Your task to perform on an android device: see creations saved in the google photos Image 0: 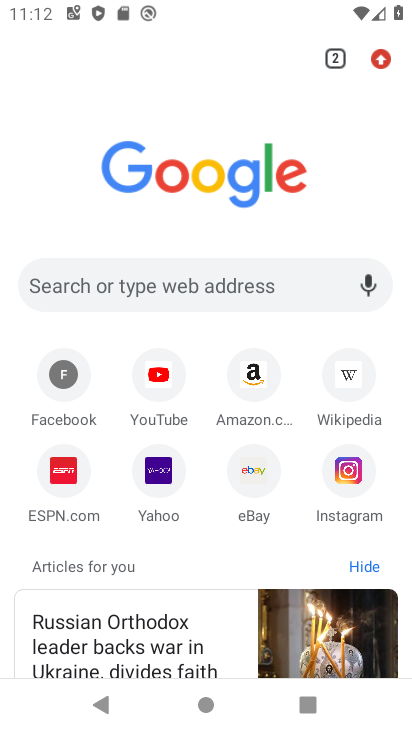
Step 0: press home button
Your task to perform on an android device: see creations saved in the google photos Image 1: 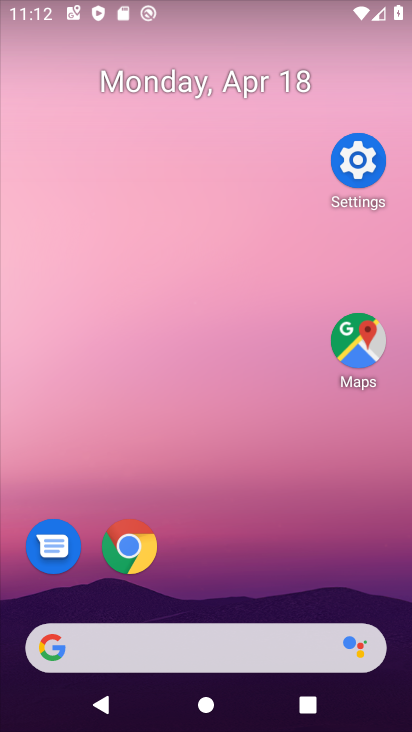
Step 1: drag from (262, 713) to (131, 136)
Your task to perform on an android device: see creations saved in the google photos Image 2: 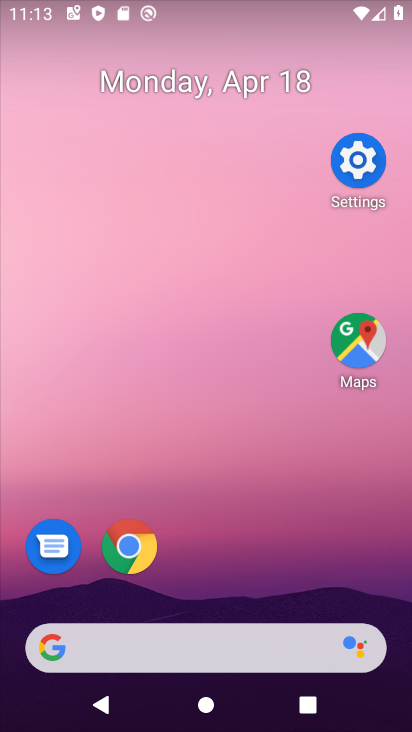
Step 2: drag from (300, 692) to (155, 75)
Your task to perform on an android device: see creations saved in the google photos Image 3: 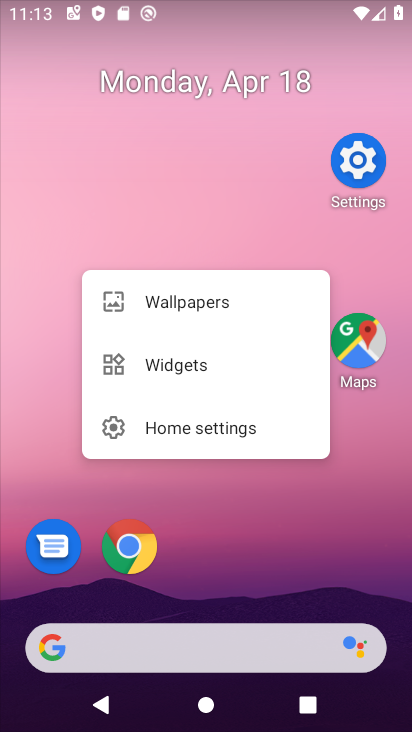
Step 3: click (141, 160)
Your task to perform on an android device: see creations saved in the google photos Image 4: 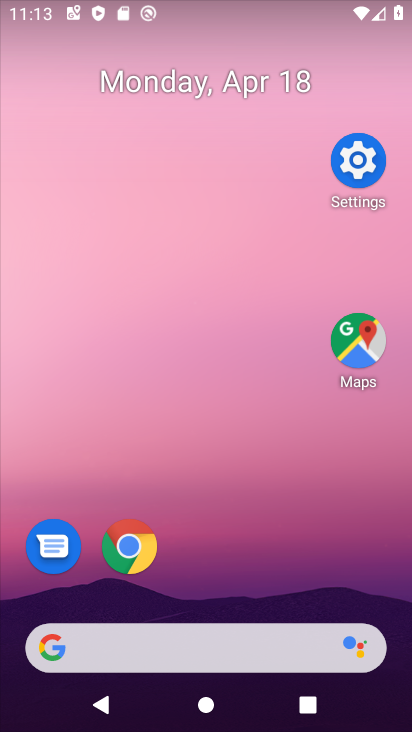
Step 4: drag from (226, 607) to (75, 62)
Your task to perform on an android device: see creations saved in the google photos Image 5: 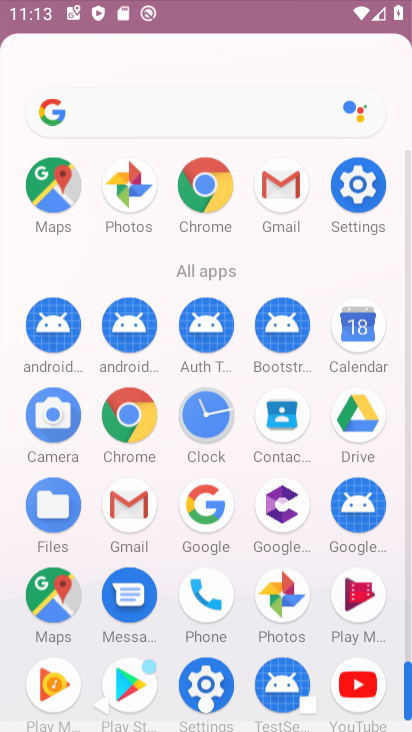
Step 5: drag from (279, 525) to (99, 104)
Your task to perform on an android device: see creations saved in the google photos Image 6: 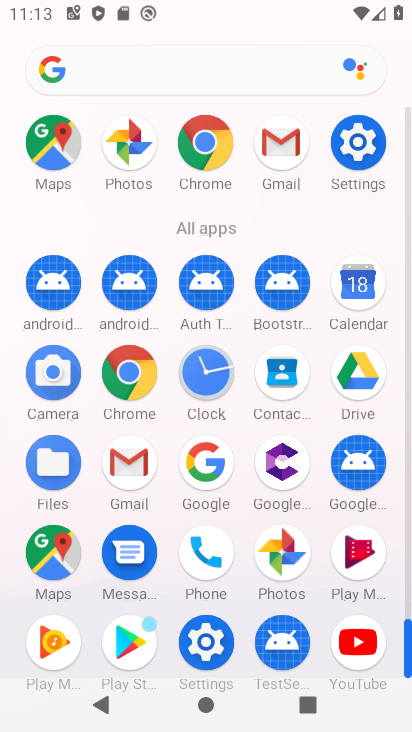
Step 6: drag from (254, 454) to (163, 159)
Your task to perform on an android device: see creations saved in the google photos Image 7: 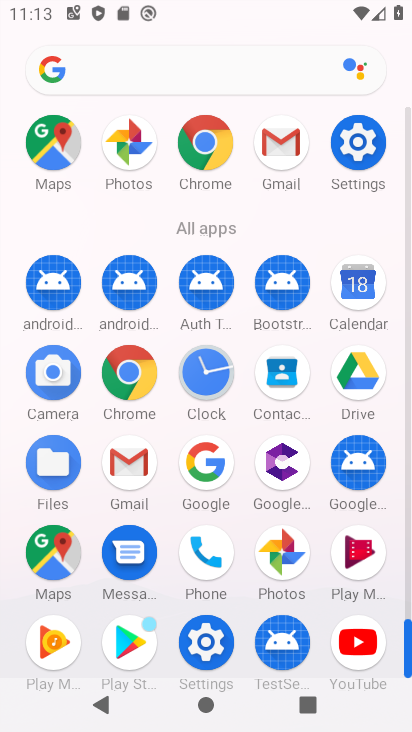
Step 7: click (279, 552)
Your task to perform on an android device: see creations saved in the google photos Image 8: 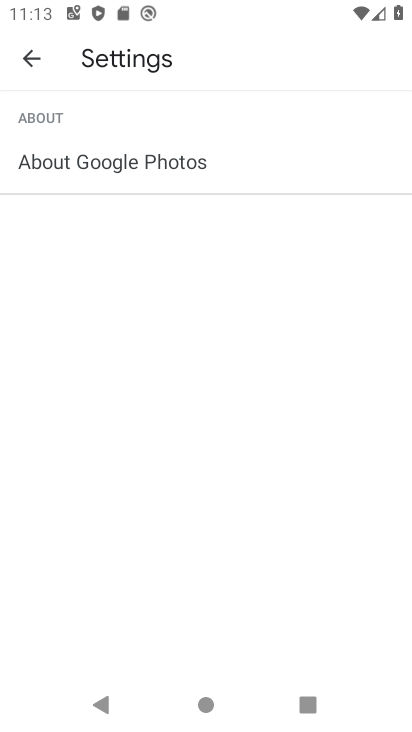
Step 8: click (33, 56)
Your task to perform on an android device: see creations saved in the google photos Image 9: 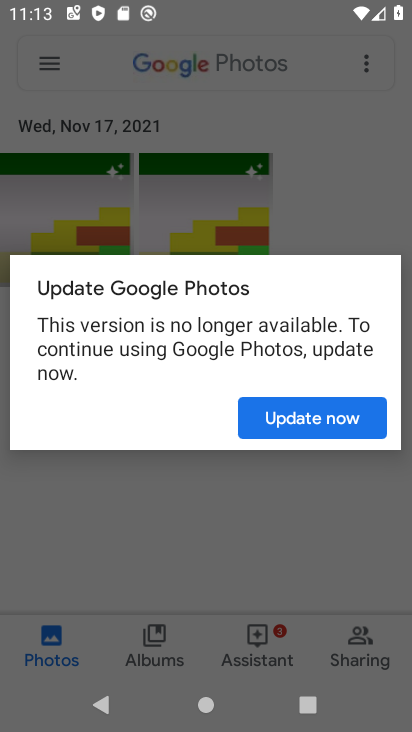
Step 9: click (328, 406)
Your task to perform on an android device: see creations saved in the google photos Image 10: 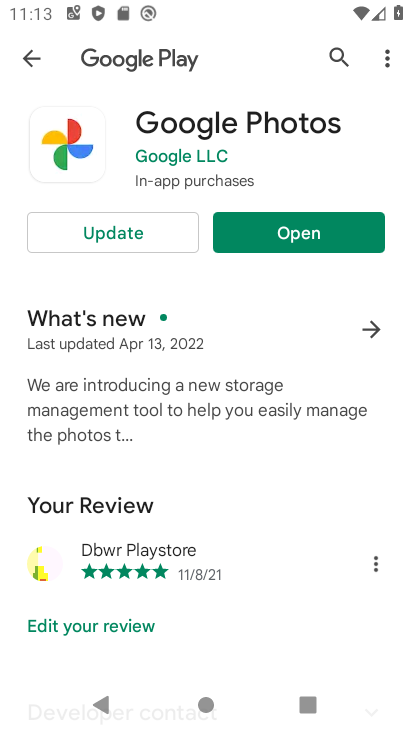
Step 10: click (119, 239)
Your task to perform on an android device: see creations saved in the google photos Image 11: 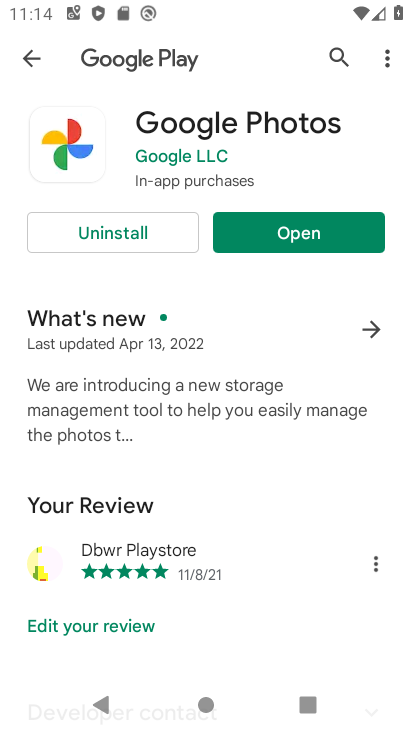
Step 11: click (304, 234)
Your task to perform on an android device: see creations saved in the google photos Image 12: 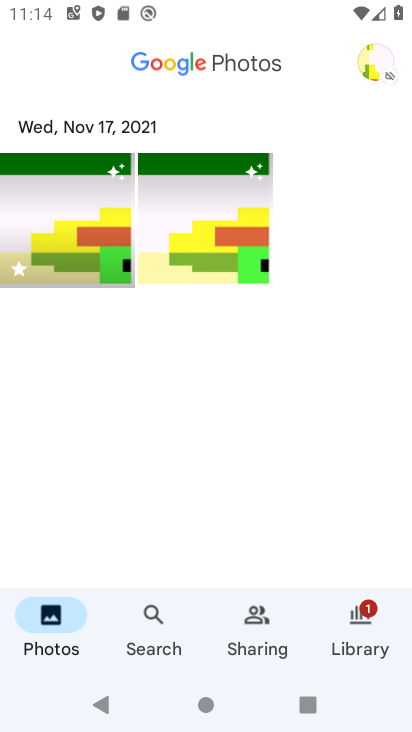
Step 12: task complete